Your task to perform on an android device: turn off smart reply in the gmail app Image 0: 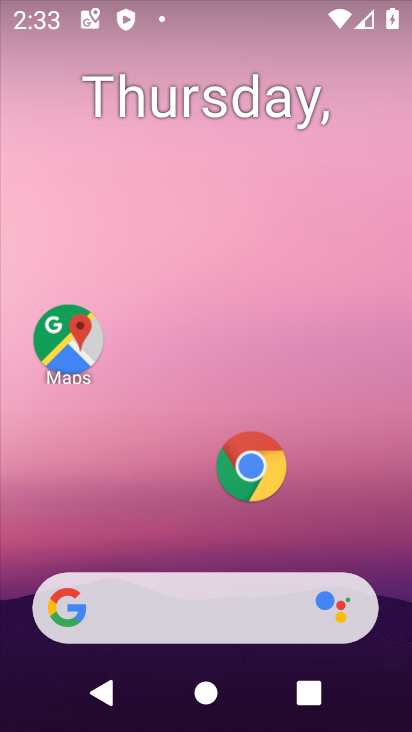
Step 0: drag from (208, 563) to (204, 172)
Your task to perform on an android device: turn off smart reply in the gmail app Image 1: 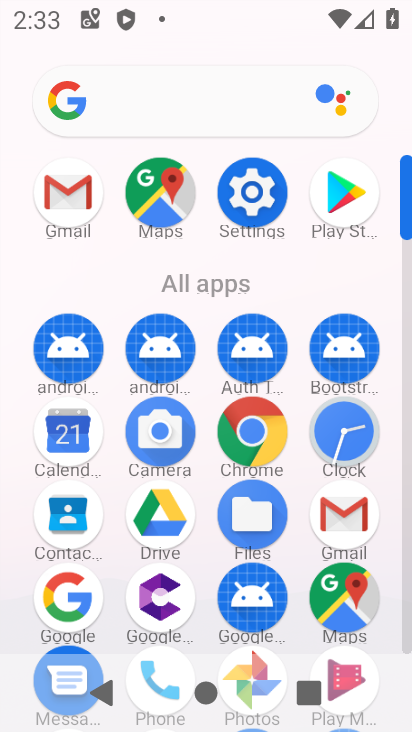
Step 1: click (96, 204)
Your task to perform on an android device: turn off smart reply in the gmail app Image 2: 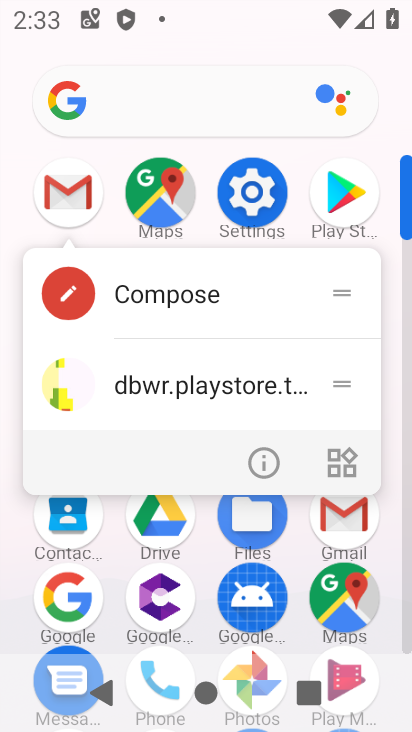
Step 2: click (84, 202)
Your task to perform on an android device: turn off smart reply in the gmail app Image 3: 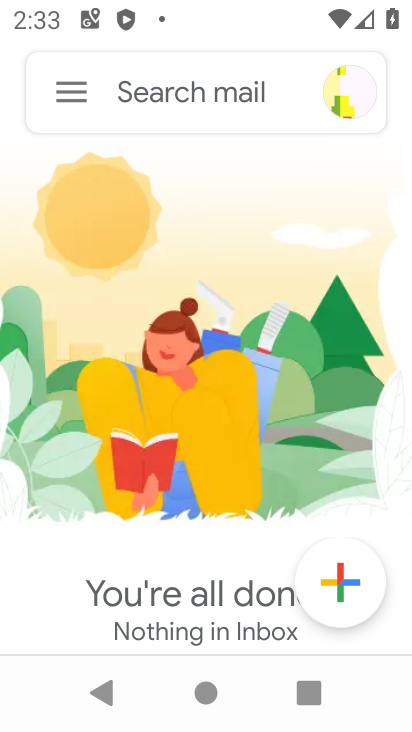
Step 3: click (62, 102)
Your task to perform on an android device: turn off smart reply in the gmail app Image 4: 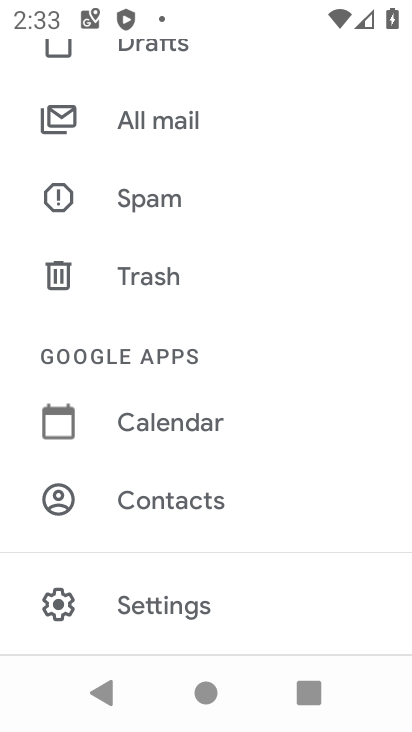
Step 4: click (184, 599)
Your task to perform on an android device: turn off smart reply in the gmail app Image 5: 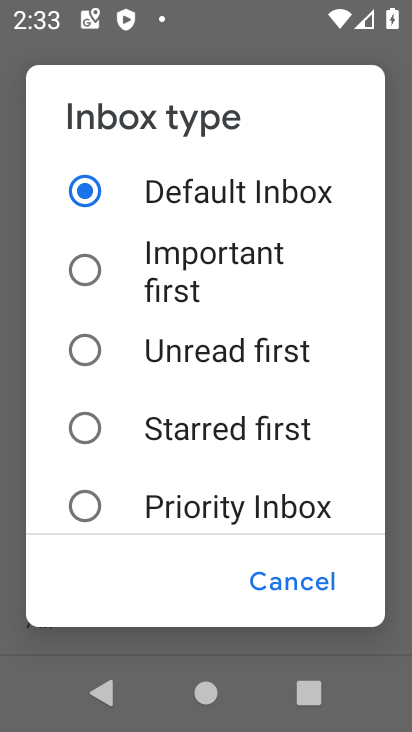
Step 5: click (286, 590)
Your task to perform on an android device: turn off smart reply in the gmail app Image 6: 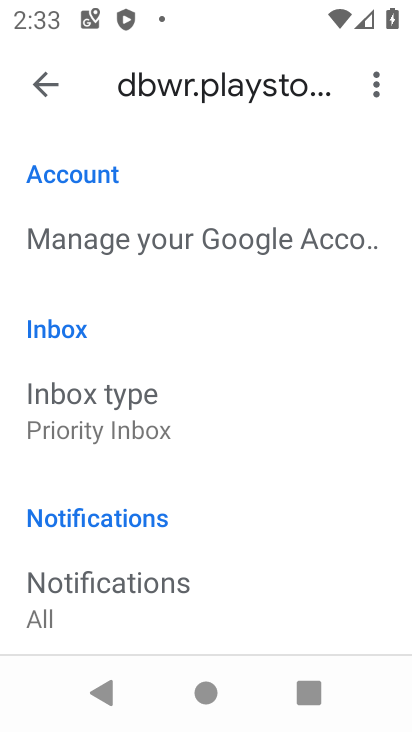
Step 6: drag from (191, 570) to (237, 259)
Your task to perform on an android device: turn off smart reply in the gmail app Image 7: 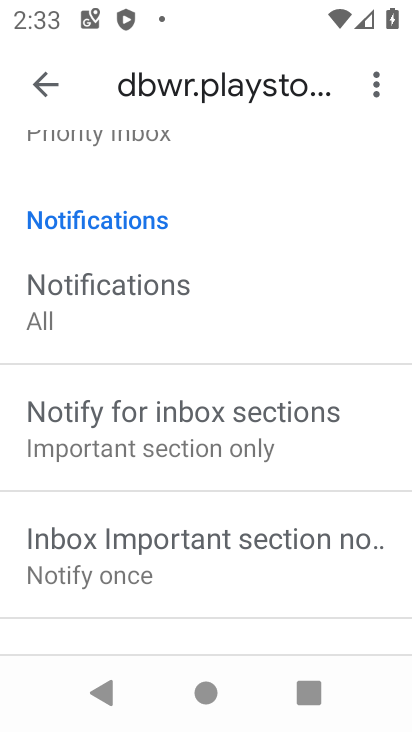
Step 7: drag from (263, 613) to (258, 314)
Your task to perform on an android device: turn off smart reply in the gmail app Image 8: 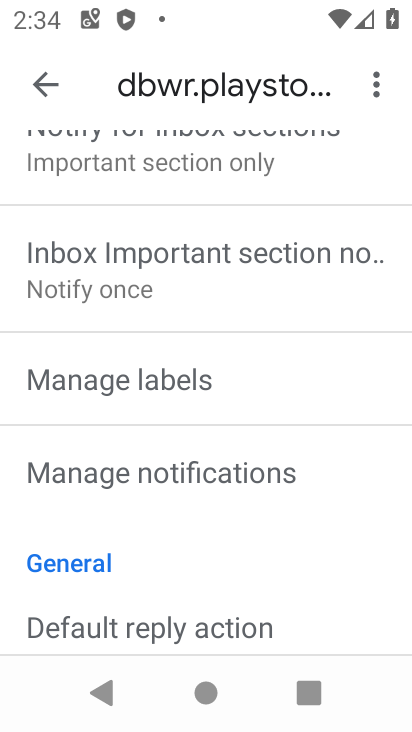
Step 8: drag from (235, 611) to (241, 242)
Your task to perform on an android device: turn off smart reply in the gmail app Image 9: 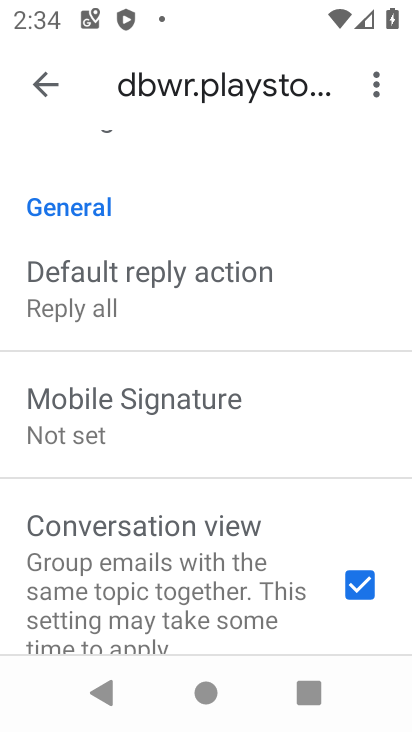
Step 9: drag from (189, 613) to (198, 309)
Your task to perform on an android device: turn off smart reply in the gmail app Image 10: 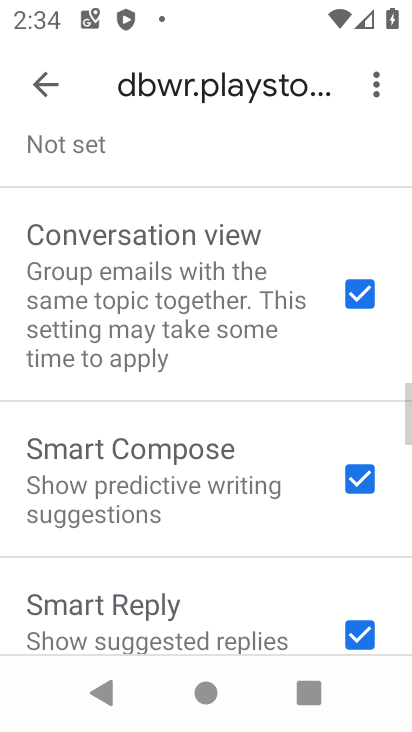
Step 10: drag from (194, 520) to (212, 342)
Your task to perform on an android device: turn off smart reply in the gmail app Image 11: 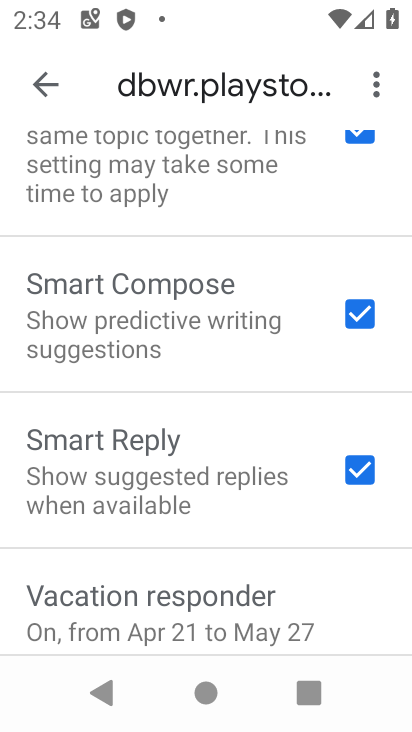
Step 11: click (359, 464)
Your task to perform on an android device: turn off smart reply in the gmail app Image 12: 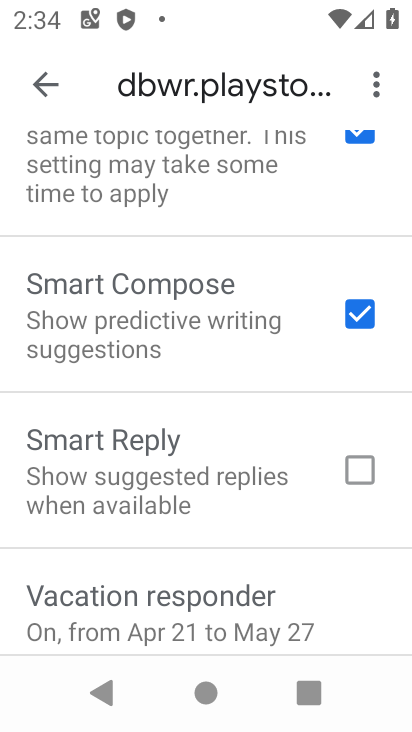
Step 12: task complete